Your task to perform on an android device: set the stopwatch Image 0: 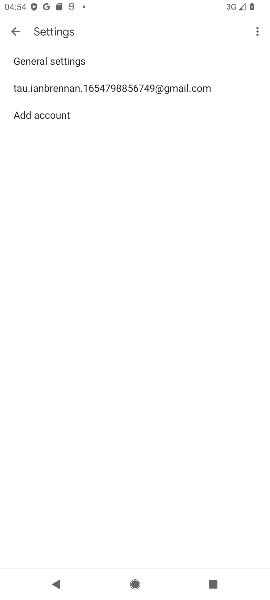
Step 0: press home button
Your task to perform on an android device: set the stopwatch Image 1: 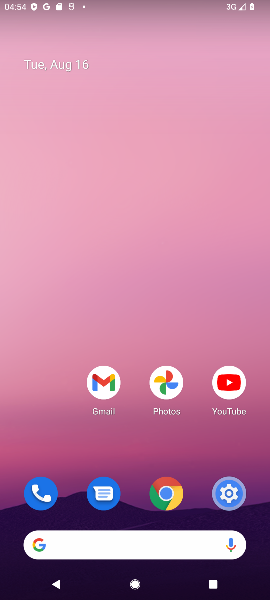
Step 1: press home button
Your task to perform on an android device: set the stopwatch Image 2: 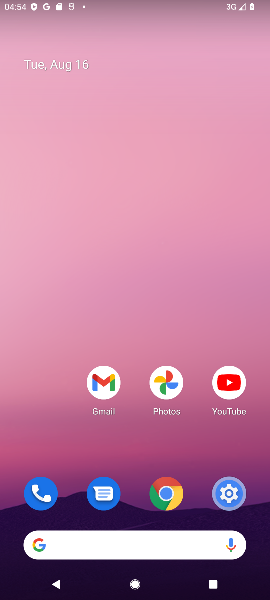
Step 2: drag from (42, 440) to (47, 64)
Your task to perform on an android device: set the stopwatch Image 3: 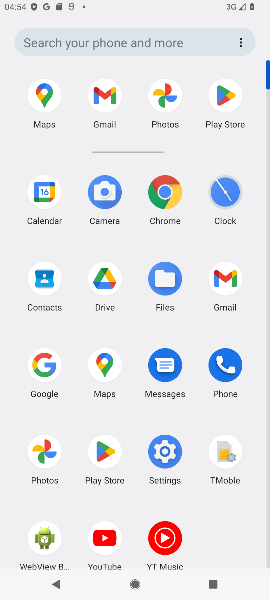
Step 3: click (223, 187)
Your task to perform on an android device: set the stopwatch Image 4: 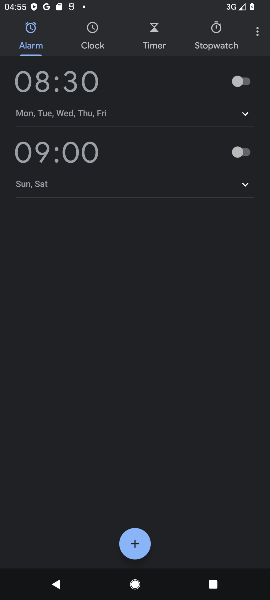
Step 4: click (214, 29)
Your task to perform on an android device: set the stopwatch Image 5: 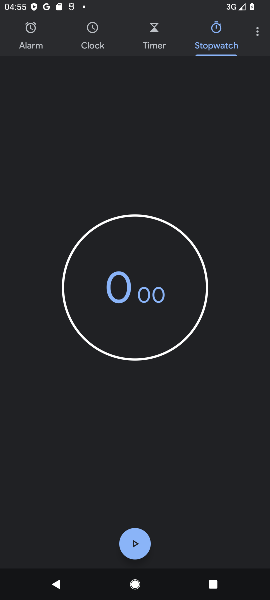
Step 5: click (136, 545)
Your task to perform on an android device: set the stopwatch Image 6: 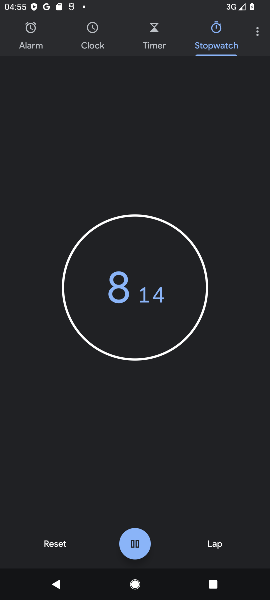
Step 6: task complete